Your task to perform on an android device: Do I have any events tomorrow? Image 0: 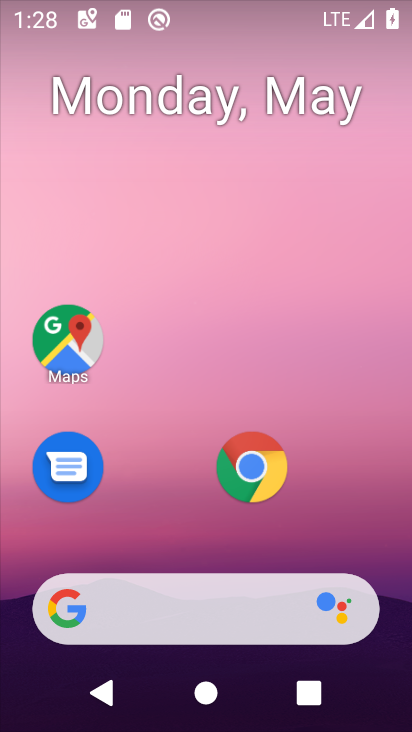
Step 0: drag from (228, 541) to (240, 95)
Your task to perform on an android device: Do I have any events tomorrow? Image 1: 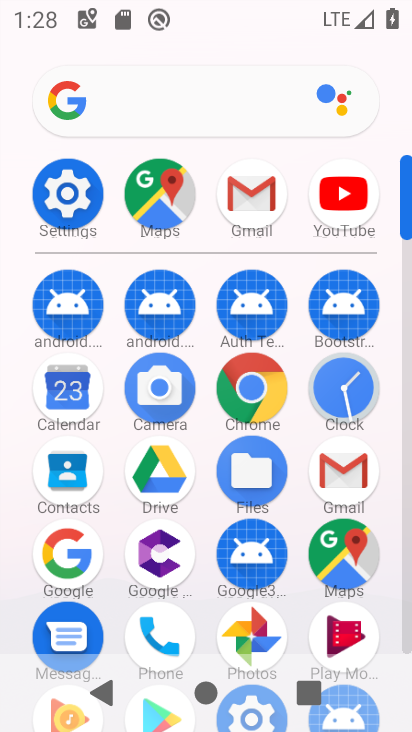
Step 1: click (187, 106)
Your task to perform on an android device: Do I have any events tomorrow? Image 2: 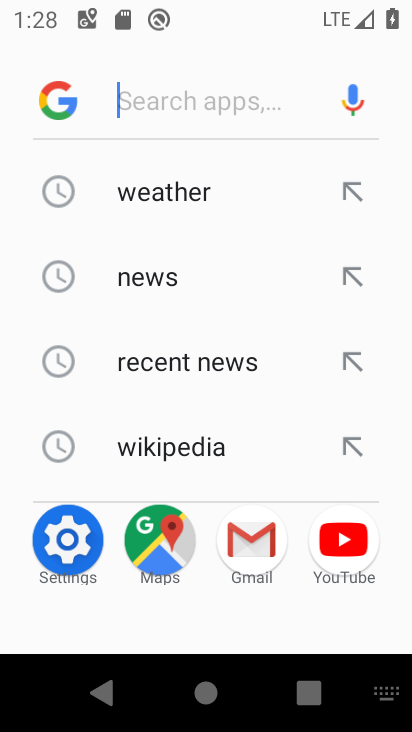
Step 2: press home button
Your task to perform on an android device: Do I have any events tomorrow? Image 3: 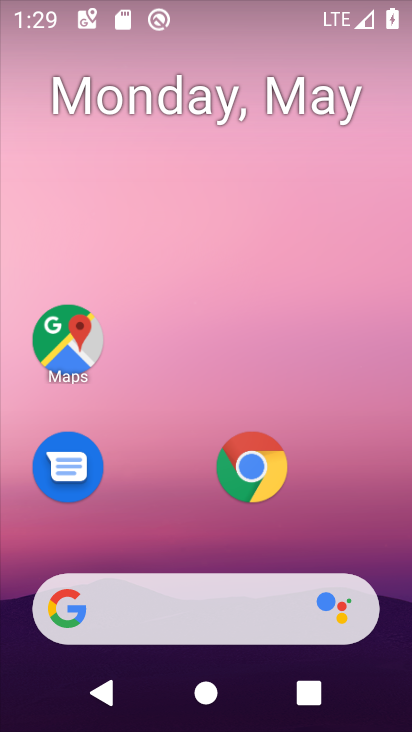
Step 3: drag from (221, 507) to (339, 145)
Your task to perform on an android device: Do I have any events tomorrow? Image 4: 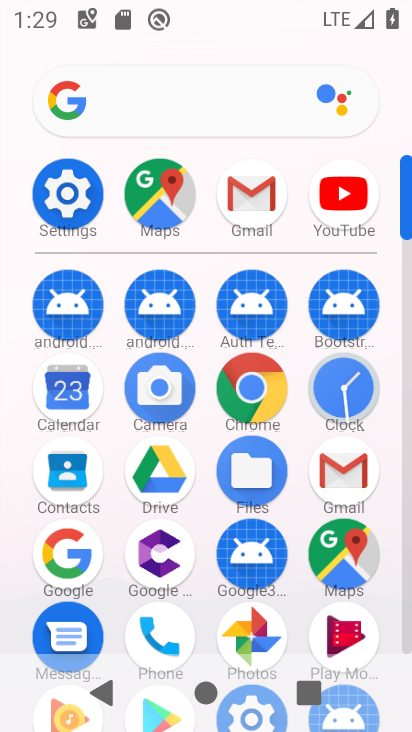
Step 4: click (54, 407)
Your task to perform on an android device: Do I have any events tomorrow? Image 5: 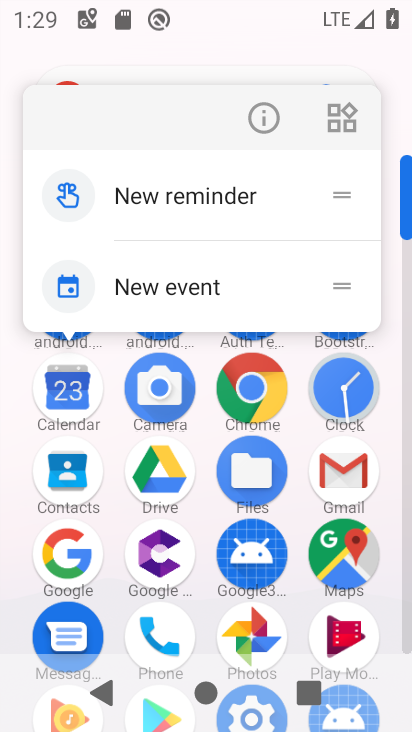
Step 5: click (262, 135)
Your task to perform on an android device: Do I have any events tomorrow? Image 6: 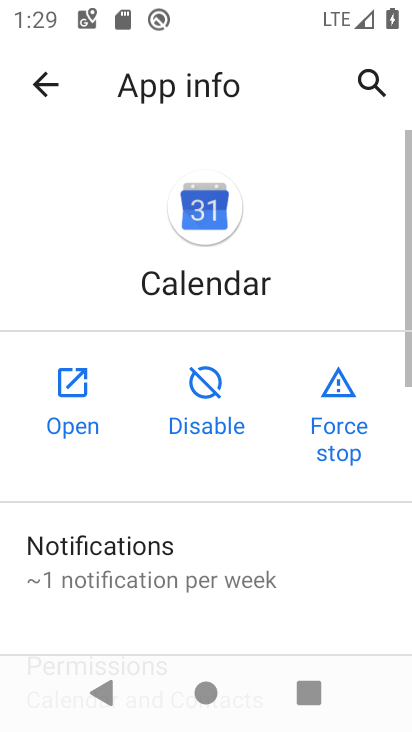
Step 6: click (66, 391)
Your task to perform on an android device: Do I have any events tomorrow? Image 7: 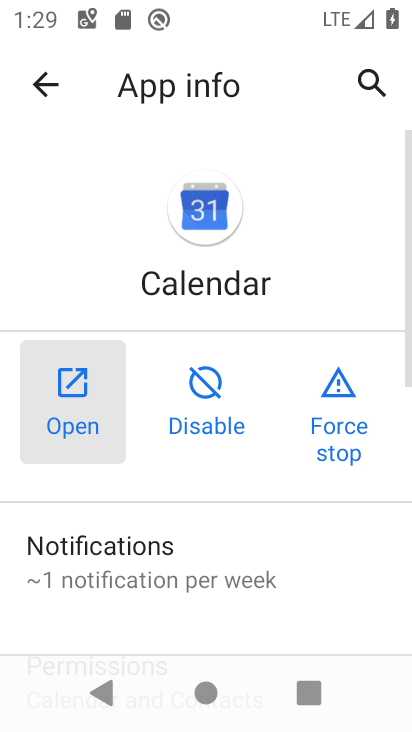
Step 7: click (58, 385)
Your task to perform on an android device: Do I have any events tomorrow? Image 8: 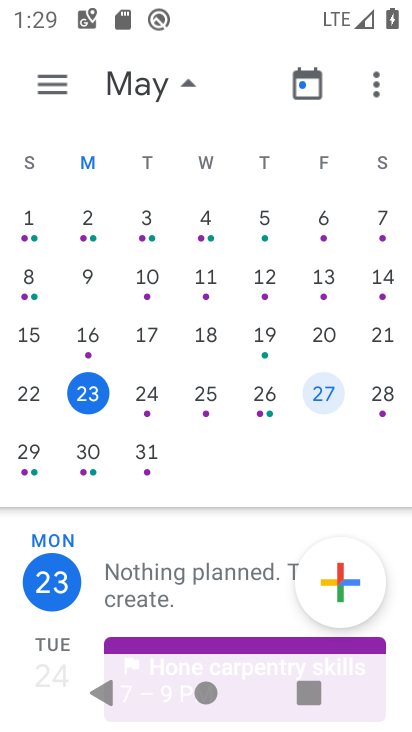
Step 8: click (150, 393)
Your task to perform on an android device: Do I have any events tomorrow? Image 9: 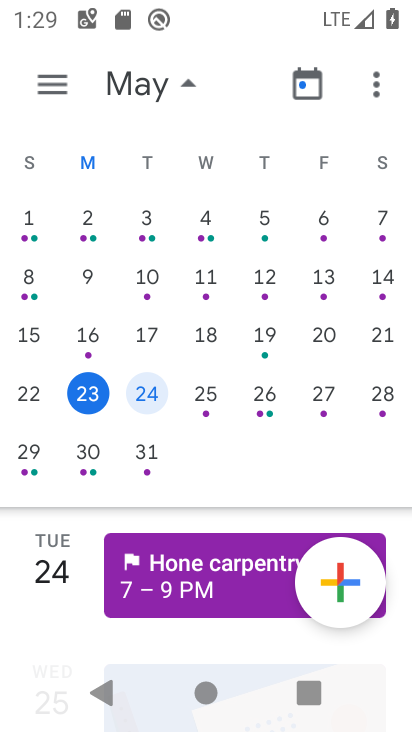
Step 9: task complete